Your task to perform on an android device: Search for vegetarian restaurants on Maps Image 0: 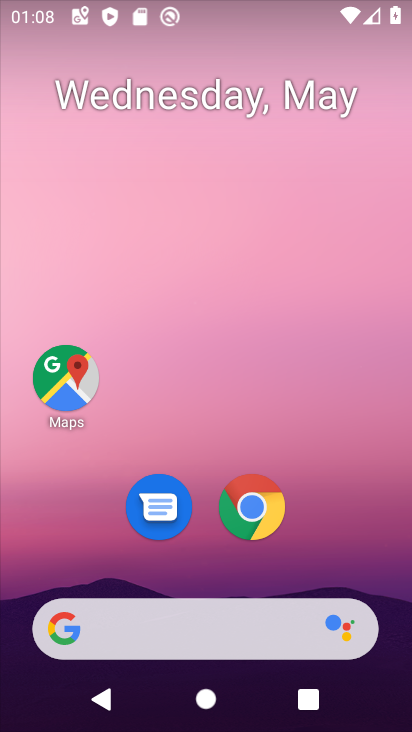
Step 0: click (61, 381)
Your task to perform on an android device: Search for vegetarian restaurants on Maps Image 1: 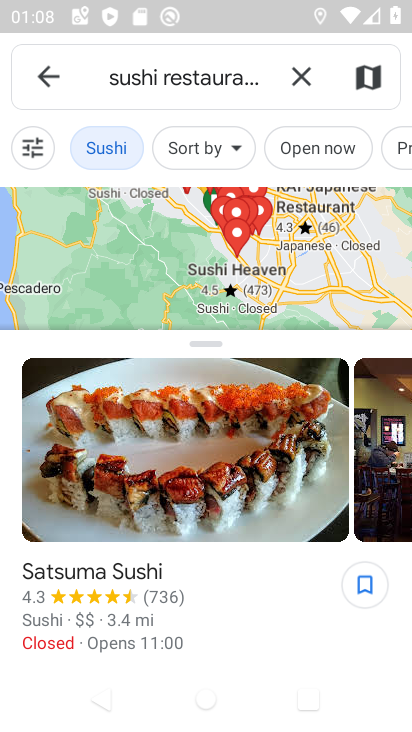
Step 1: click (298, 71)
Your task to perform on an android device: Search for vegetarian restaurants on Maps Image 2: 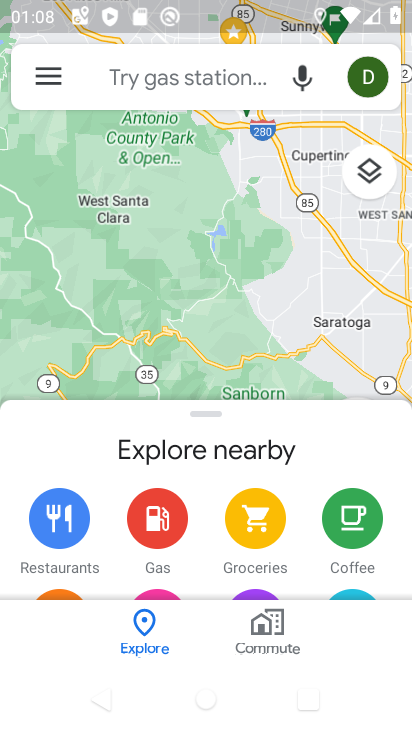
Step 2: click (148, 79)
Your task to perform on an android device: Search for vegetarian restaurants on Maps Image 3: 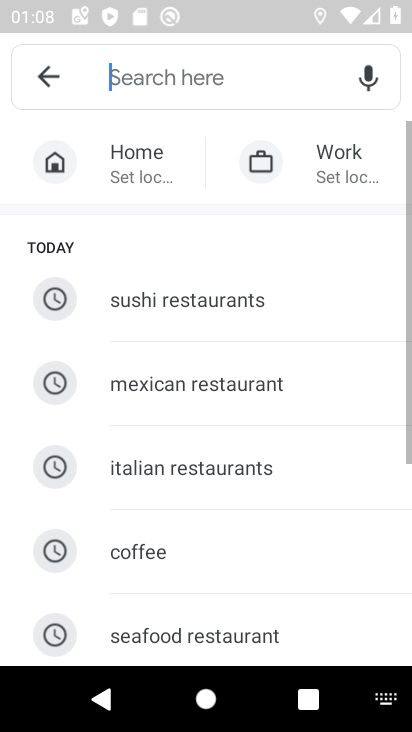
Step 3: drag from (202, 534) to (257, 218)
Your task to perform on an android device: Search for vegetarian restaurants on Maps Image 4: 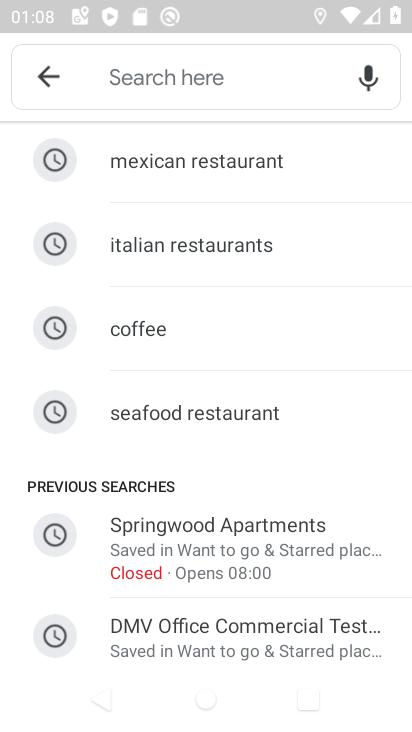
Step 4: click (217, 61)
Your task to perform on an android device: Search for vegetarian restaurants on Maps Image 5: 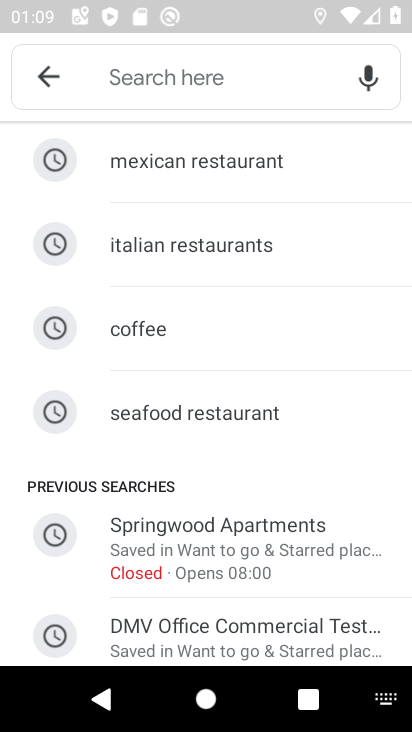
Step 5: type "r vegetarian restaurants "
Your task to perform on an android device: Search for vegetarian restaurants on Maps Image 6: 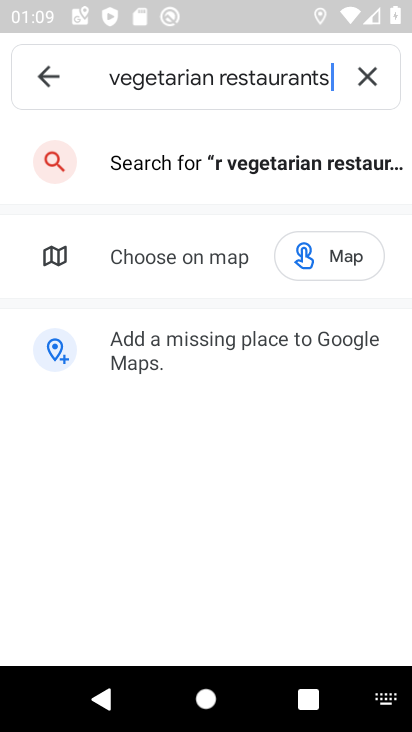
Step 6: click (253, 168)
Your task to perform on an android device: Search for vegetarian restaurants on Maps Image 7: 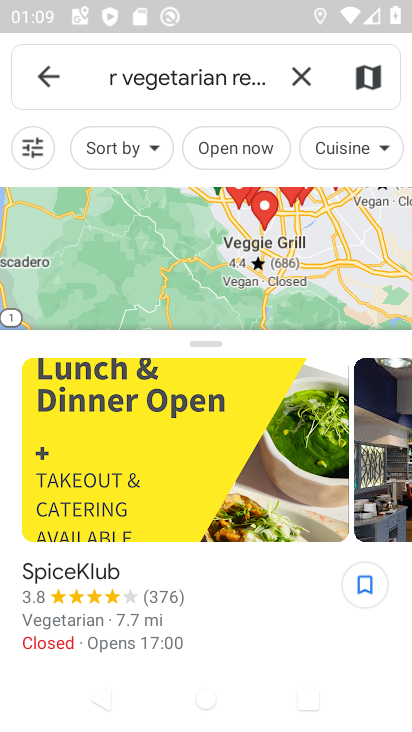
Step 7: task complete